Your task to perform on an android device: View the shopping cart on target.com. Add "apple airpods" to the cart on target.com Image 0: 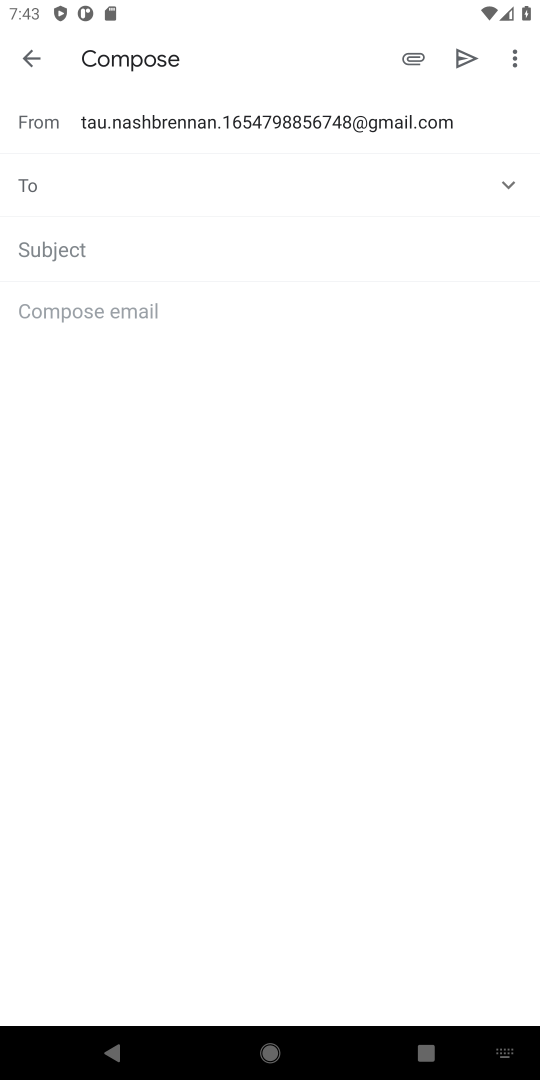
Step 0: press home button
Your task to perform on an android device: View the shopping cart on target.com. Add "apple airpods" to the cart on target.com Image 1: 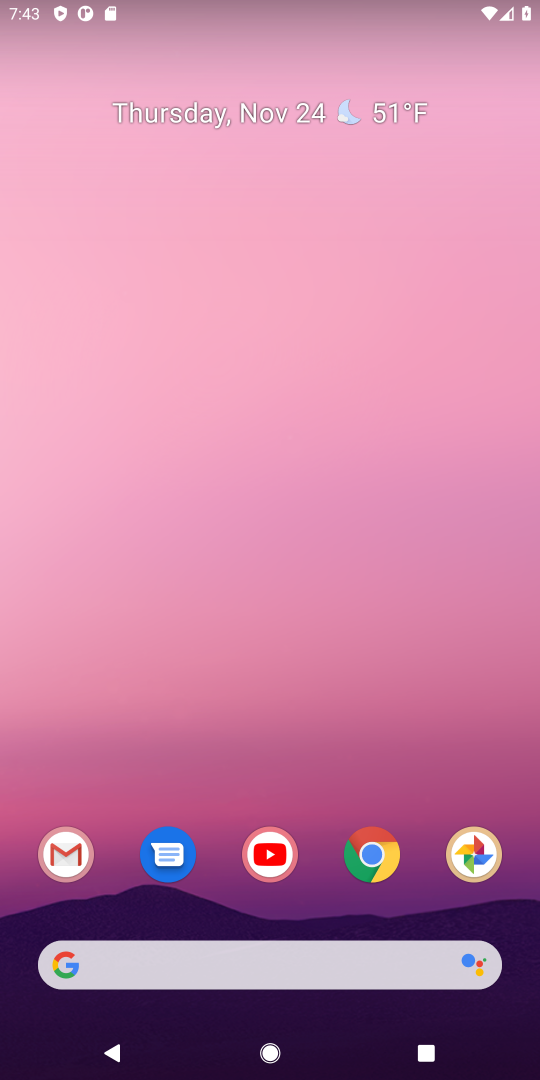
Step 1: click (378, 880)
Your task to perform on an android device: View the shopping cart on target.com. Add "apple airpods" to the cart on target.com Image 2: 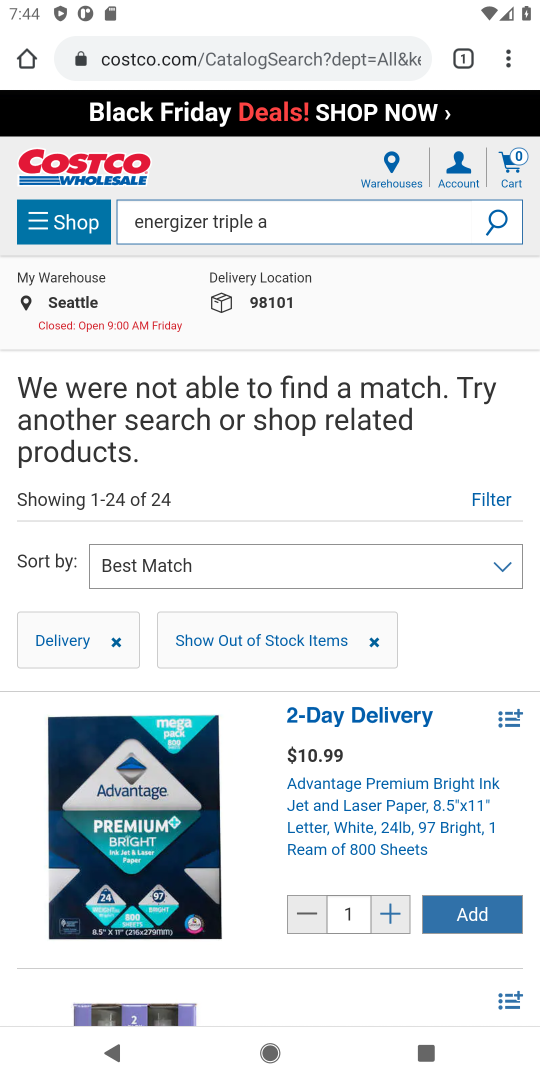
Step 2: click (238, 62)
Your task to perform on an android device: View the shopping cart on target.com. Add "apple airpods" to the cart on target.com Image 3: 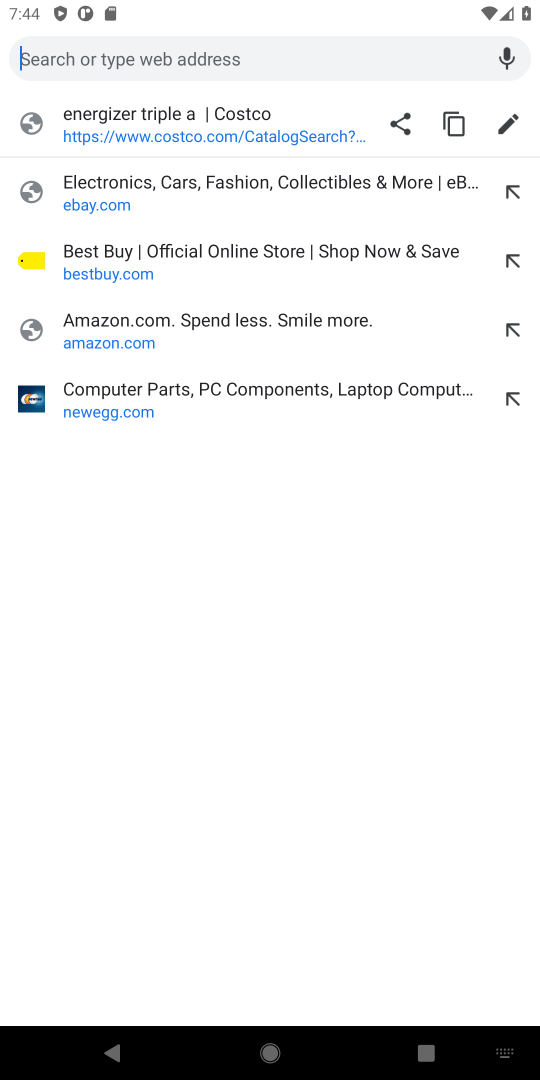
Step 3: type "target.com"
Your task to perform on an android device: View the shopping cart on target.com. Add "apple airpods" to the cart on target.com Image 4: 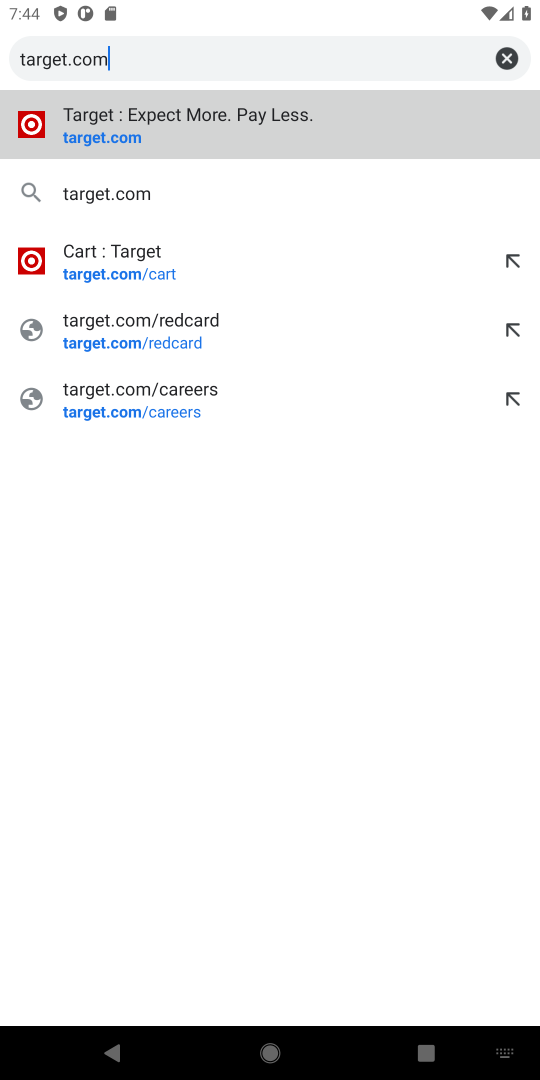
Step 4: click (73, 142)
Your task to perform on an android device: View the shopping cart on target.com. Add "apple airpods" to the cart on target.com Image 5: 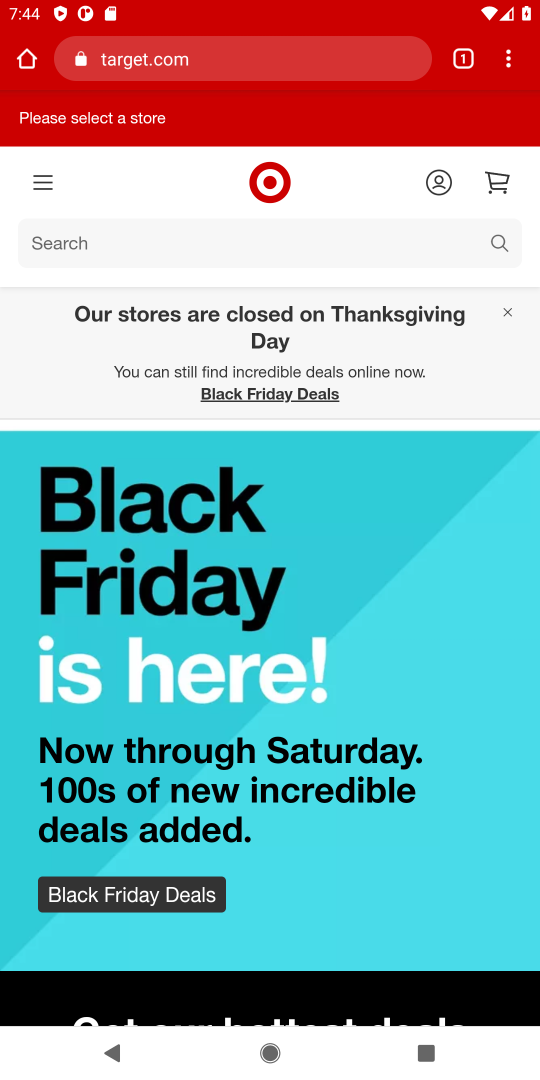
Step 5: click (490, 177)
Your task to perform on an android device: View the shopping cart on target.com. Add "apple airpods" to the cart on target.com Image 6: 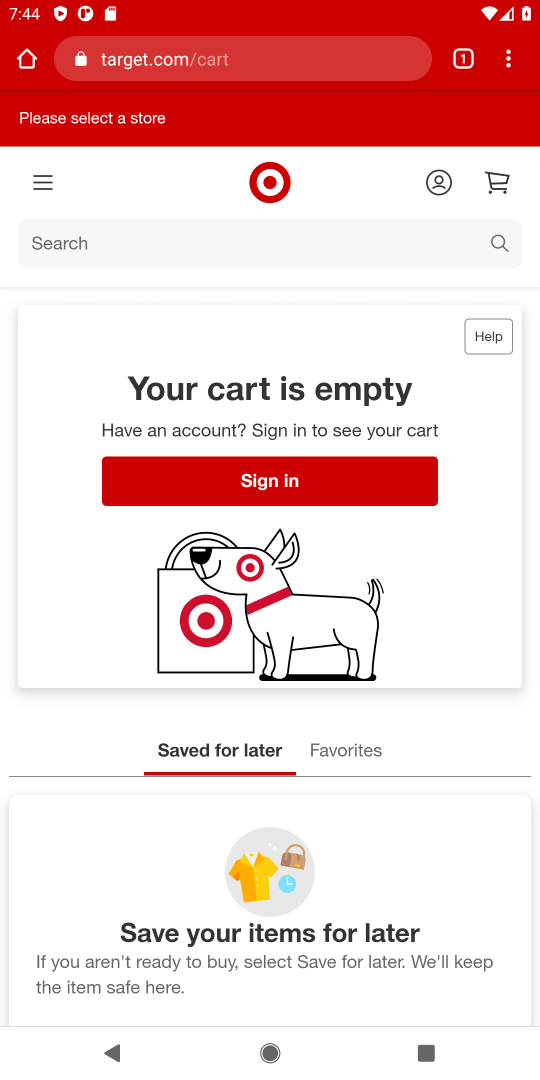
Step 6: click (500, 252)
Your task to perform on an android device: View the shopping cart on target.com. Add "apple airpods" to the cart on target.com Image 7: 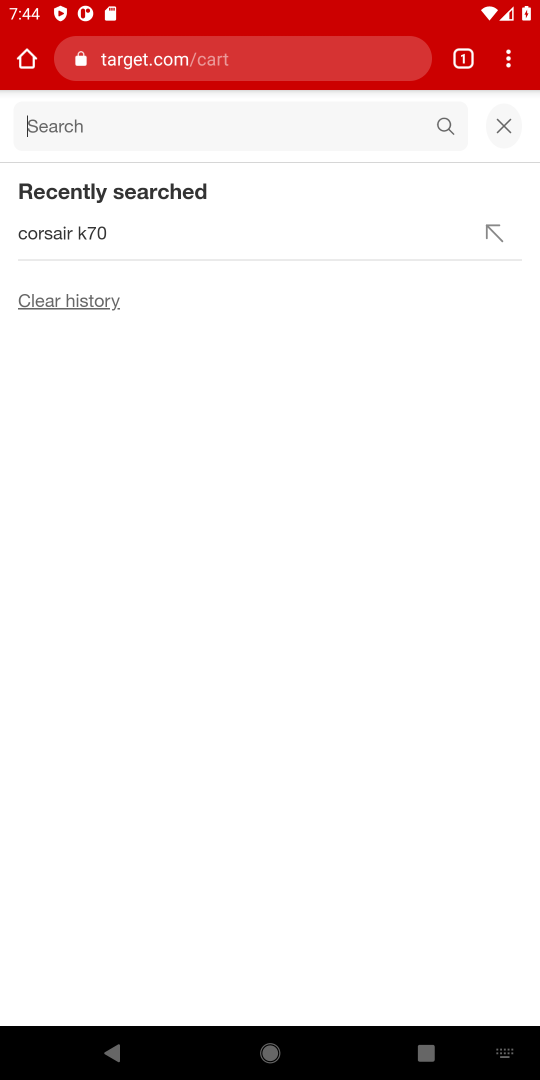
Step 7: type "apple airpods"
Your task to perform on an android device: View the shopping cart on target.com. Add "apple airpods" to the cart on target.com Image 8: 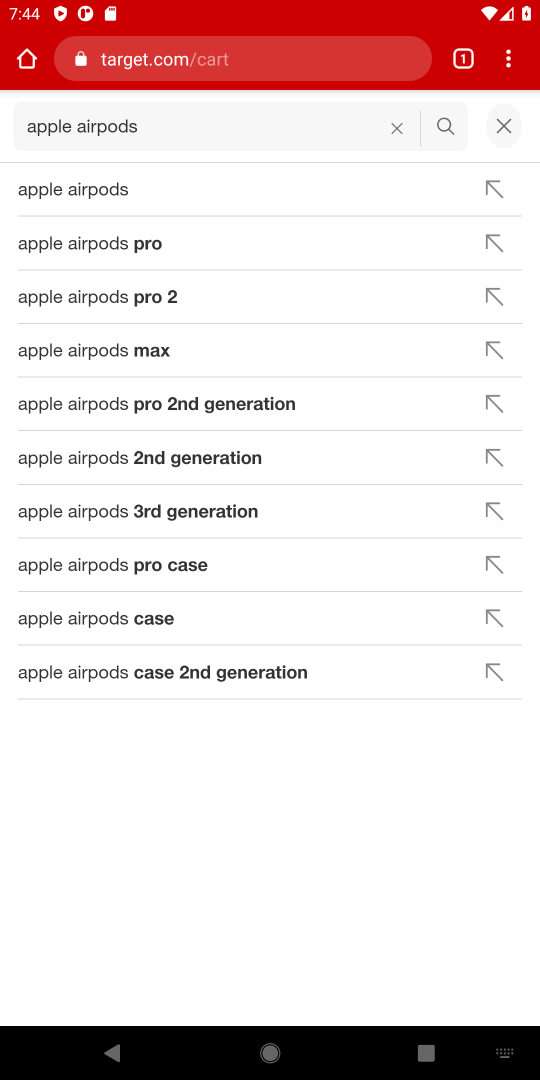
Step 8: click (77, 193)
Your task to perform on an android device: View the shopping cart on target.com. Add "apple airpods" to the cart on target.com Image 9: 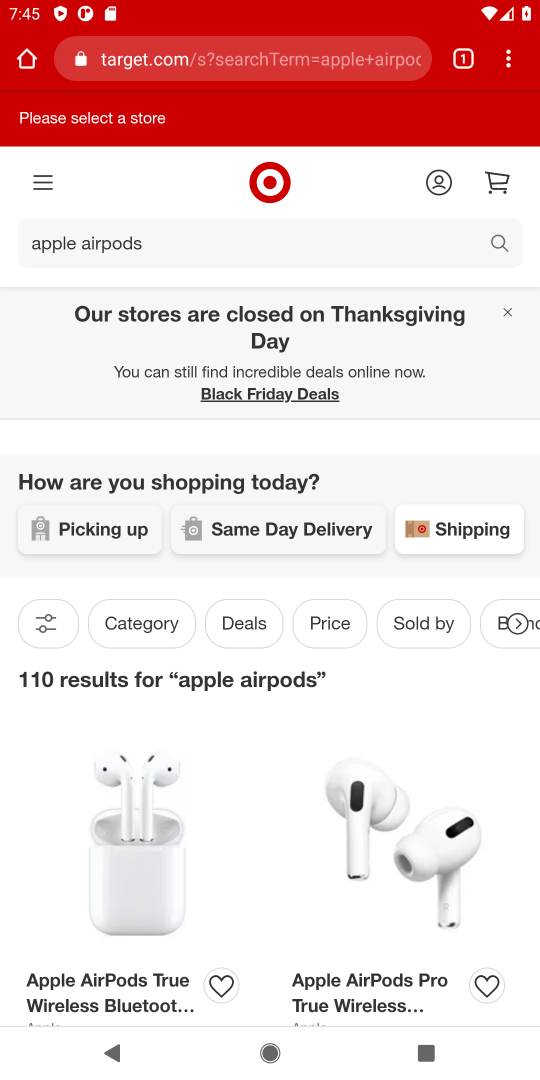
Step 9: drag from (220, 846) to (215, 612)
Your task to perform on an android device: View the shopping cart on target.com. Add "apple airpods" to the cart on target.com Image 10: 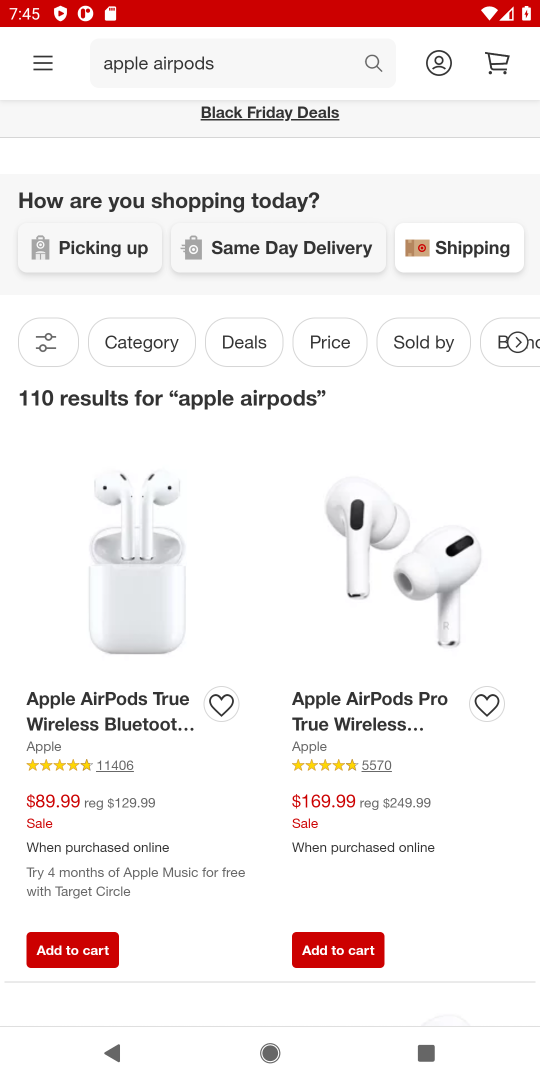
Step 10: click (122, 614)
Your task to perform on an android device: View the shopping cart on target.com. Add "apple airpods" to the cart on target.com Image 11: 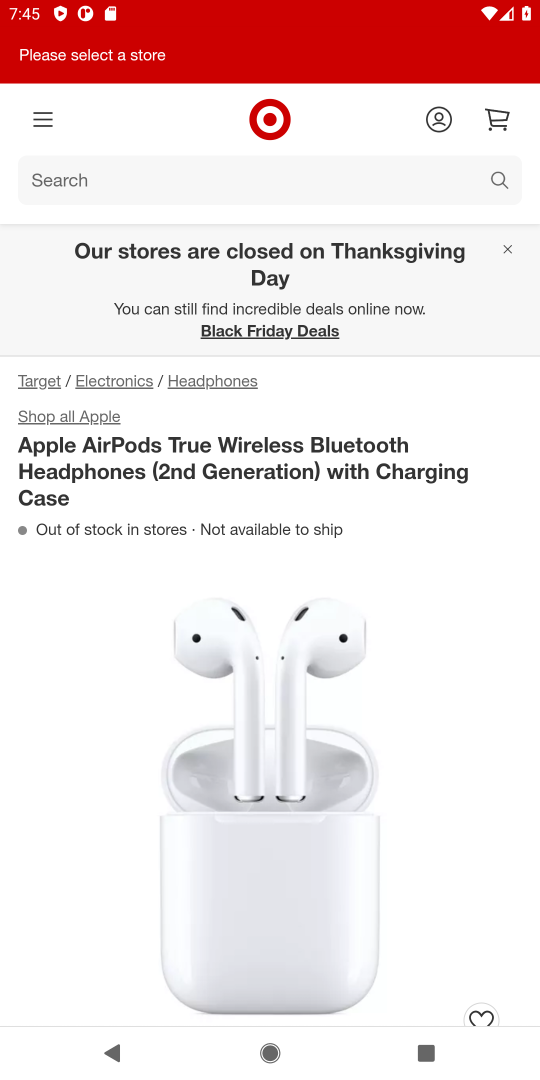
Step 11: drag from (229, 746) to (223, 318)
Your task to perform on an android device: View the shopping cart on target.com. Add "apple airpods" to the cart on target.com Image 12: 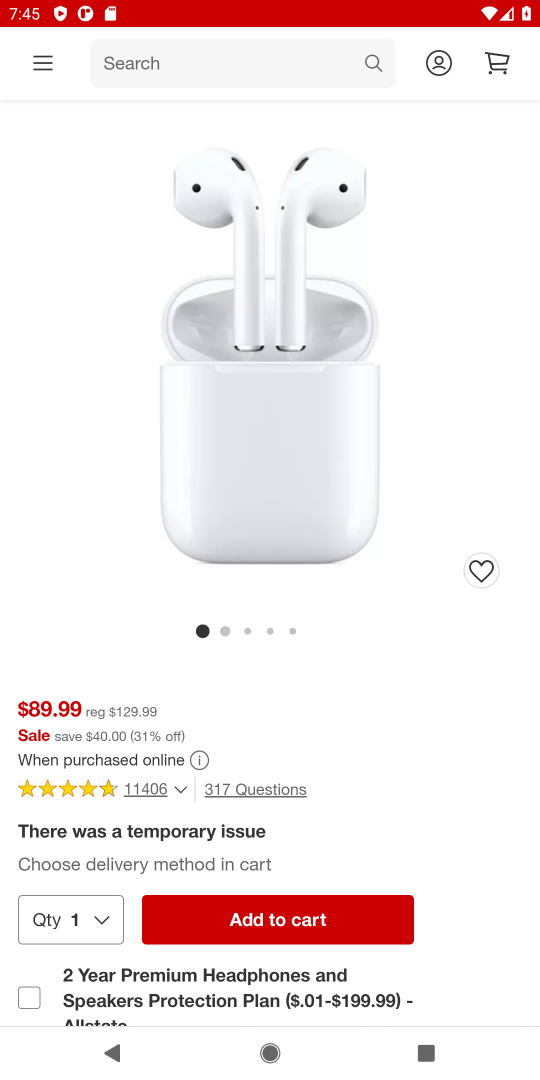
Step 12: click (268, 909)
Your task to perform on an android device: View the shopping cart on target.com. Add "apple airpods" to the cart on target.com Image 13: 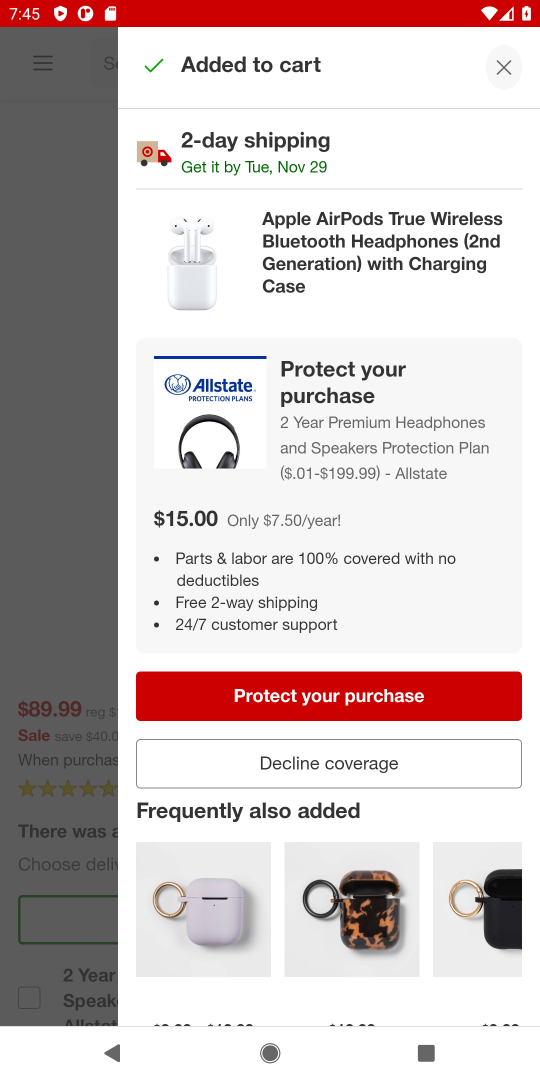
Step 13: task complete